Your task to perform on an android device: What's the weather going to be this weekend? Image 0: 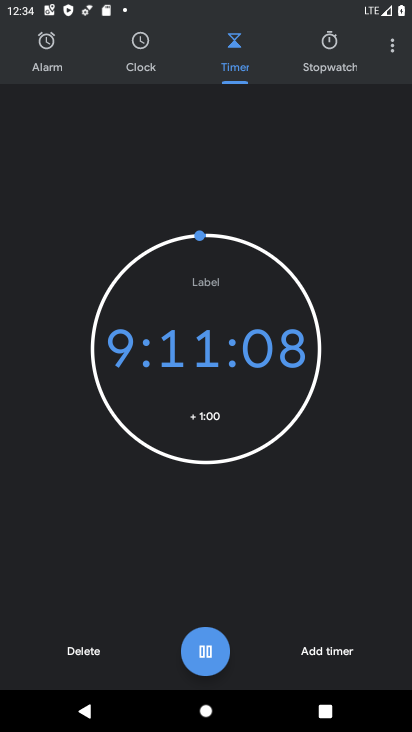
Step 0: press back button
Your task to perform on an android device: What's the weather going to be this weekend? Image 1: 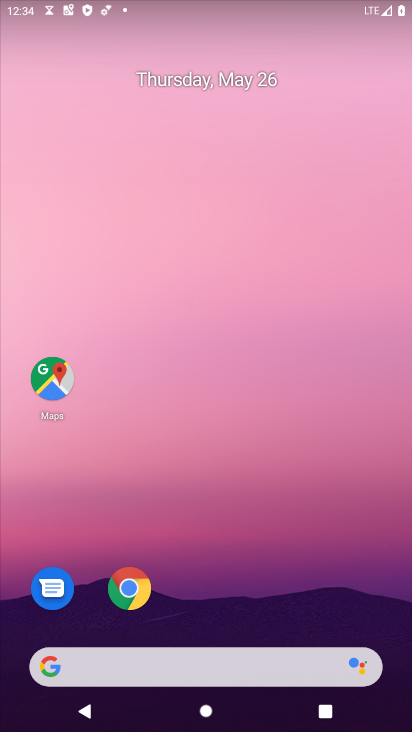
Step 1: drag from (301, 484) to (317, 40)
Your task to perform on an android device: What's the weather going to be this weekend? Image 2: 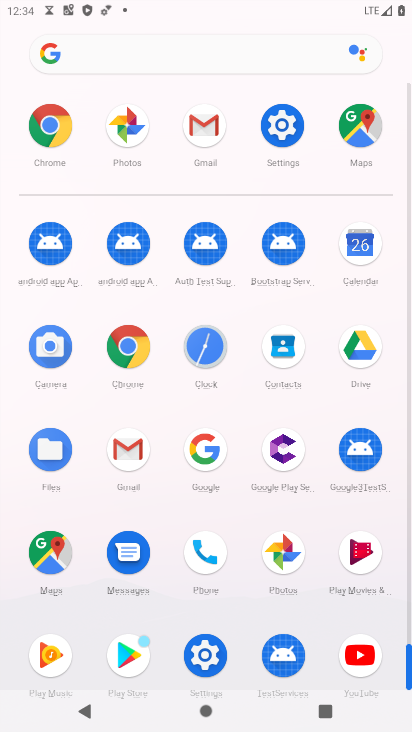
Step 2: drag from (19, 562) to (17, 257)
Your task to perform on an android device: What's the weather going to be this weekend? Image 3: 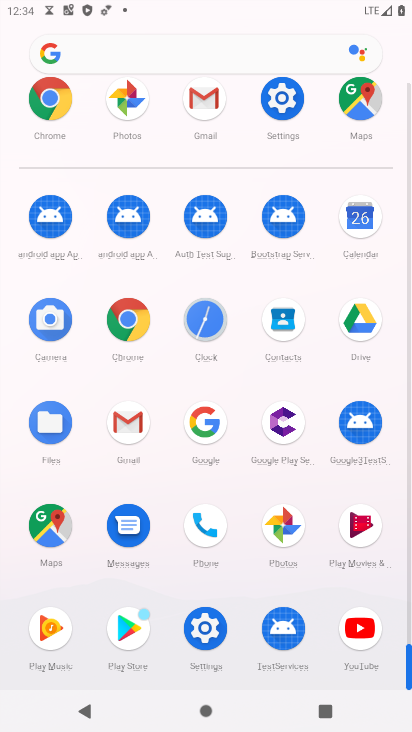
Step 3: click (127, 314)
Your task to perform on an android device: What's the weather going to be this weekend? Image 4: 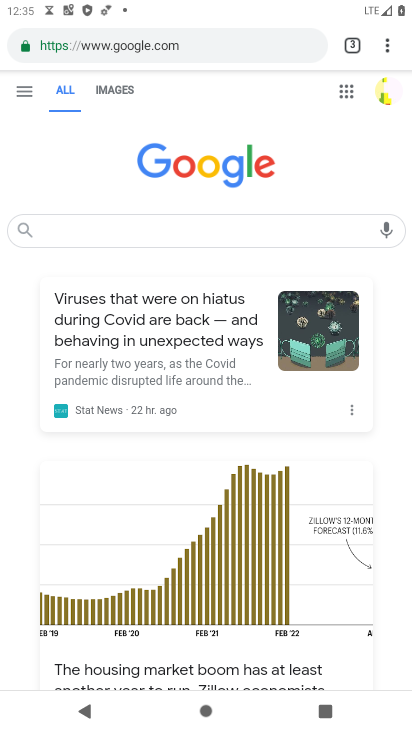
Step 4: click (147, 43)
Your task to perform on an android device: What's the weather going to be this weekend? Image 5: 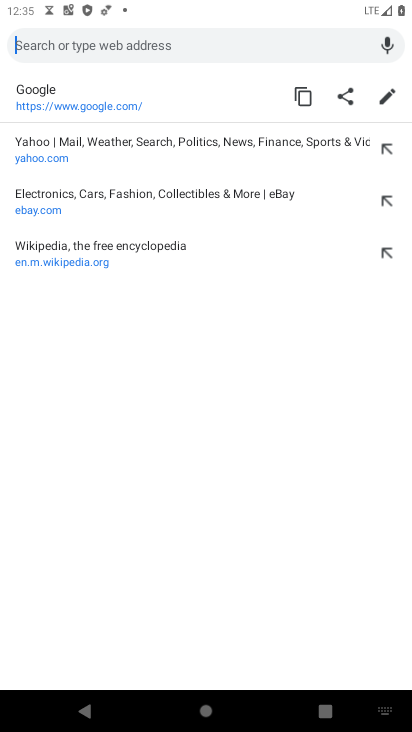
Step 5: type "What's the weather going to be this weekend?"
Your task to perform on an android device: What's the weather going to be this weekend? Image 6: 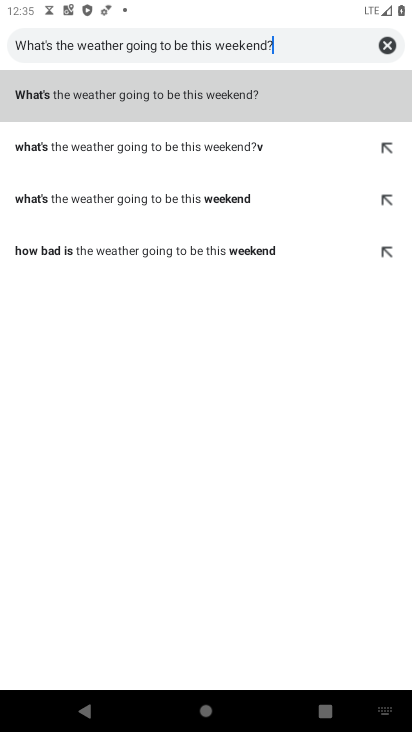
Step 6: click (202, 102)
Your task to perform on an android device: What's the weather going to be this weekend? Image 7: 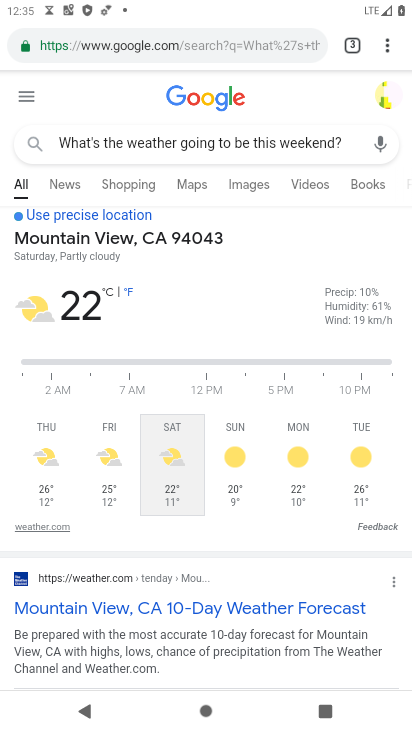
Step 7: task complete